Your task to perform on an android device: Open calendar and show me the second week of next month Image 0: 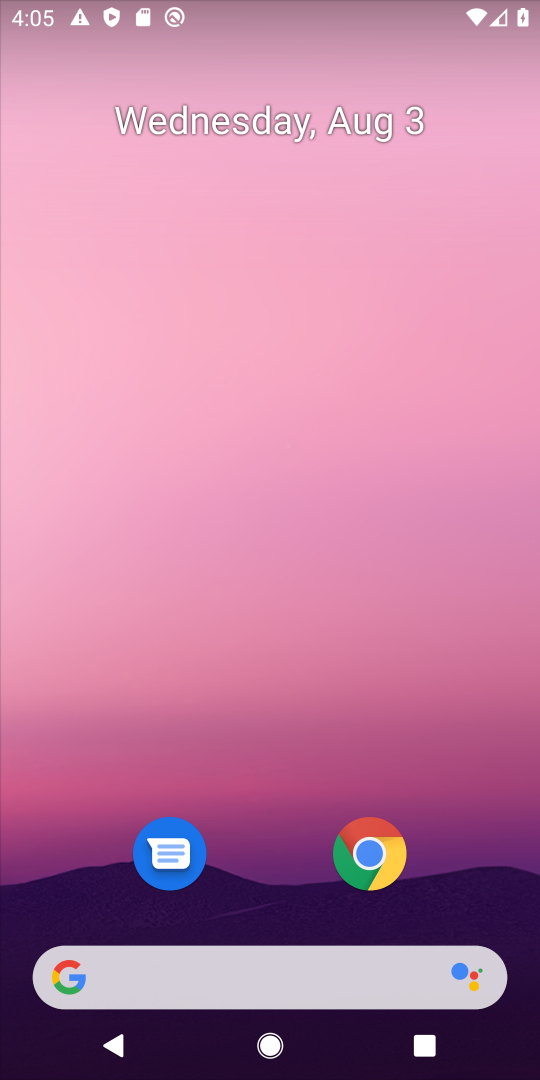
Step 0: drag from (292, 686) to (297, 16)
Your task to perform on an android device: Open calendar and show me the second week of next month Image 1: 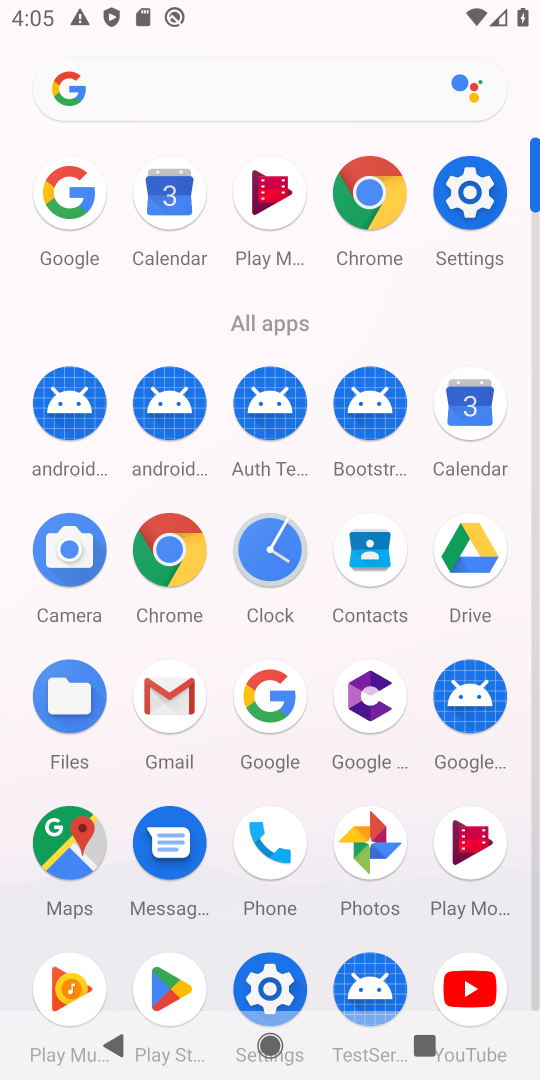
Step 1: click (466, 434)
Your task to perform on an android device: Open calendar and show me the second week of next month Image 2: 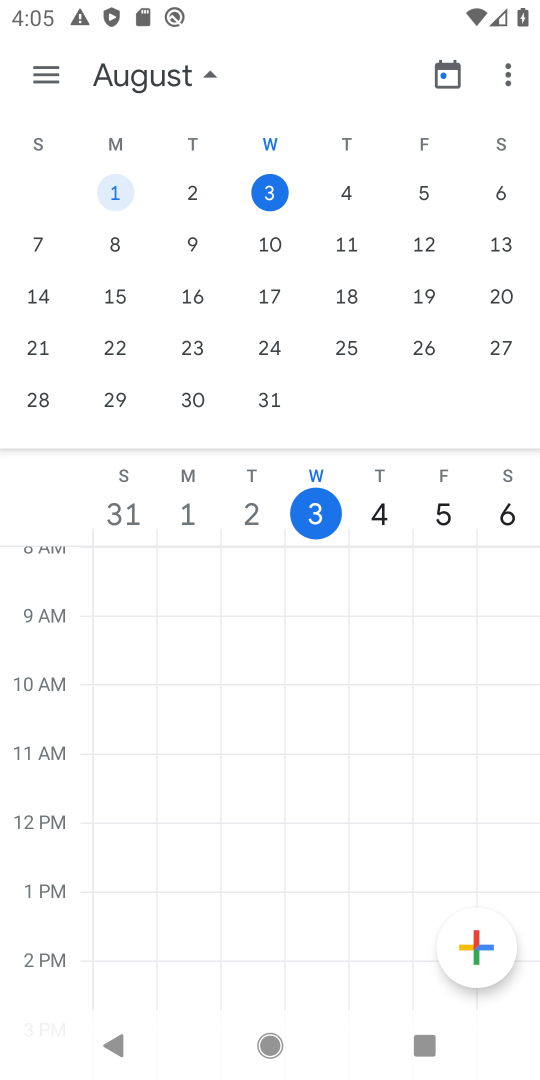
Step 2: drag from (428, 278) to (42, 233)
Your task to perform on an android device: Open calendar and show me the second week of next month Image 3: 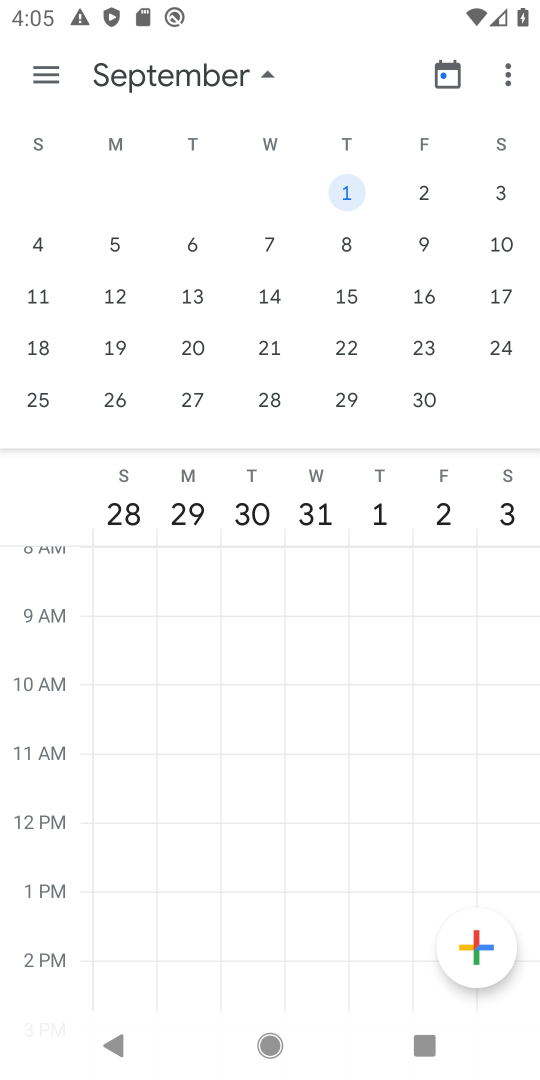
Step 3: click (120, 293)
Your task to perform on an android device: Open calendar and show me the second week of next month Image 4: 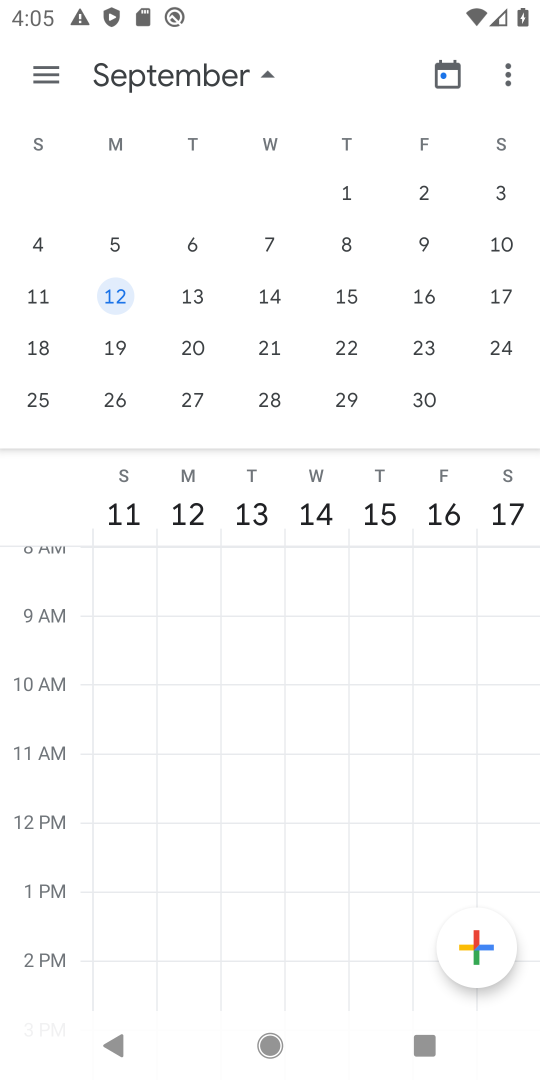
Step 4: click (29, 79)
Your task to perform on an android device: Open calendar and show me the second week of next month Image 5: 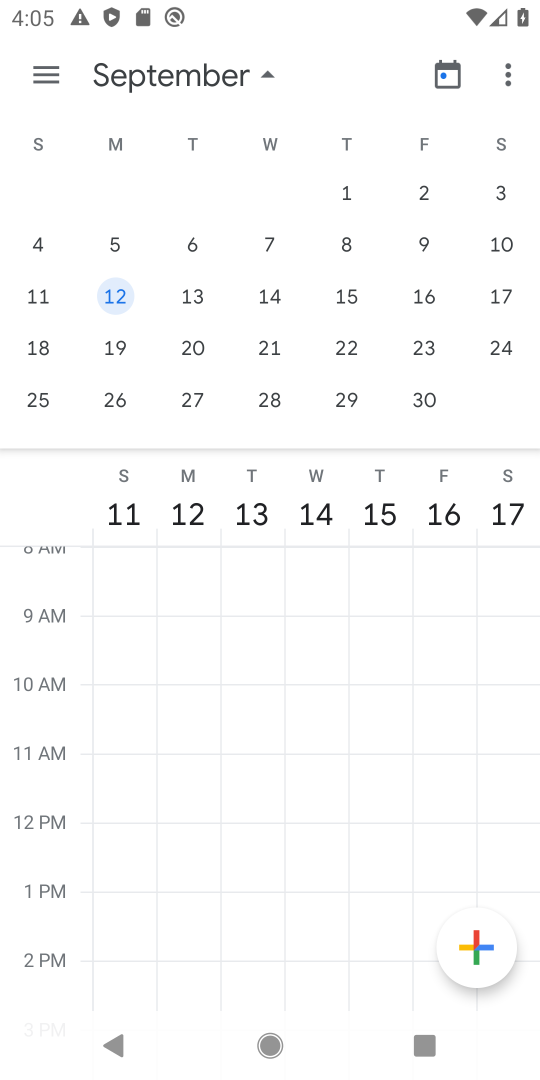
Step 5: click (49, 68)
Your task to perform on an android device: Open calendar and show me the second week of next month Image 6: 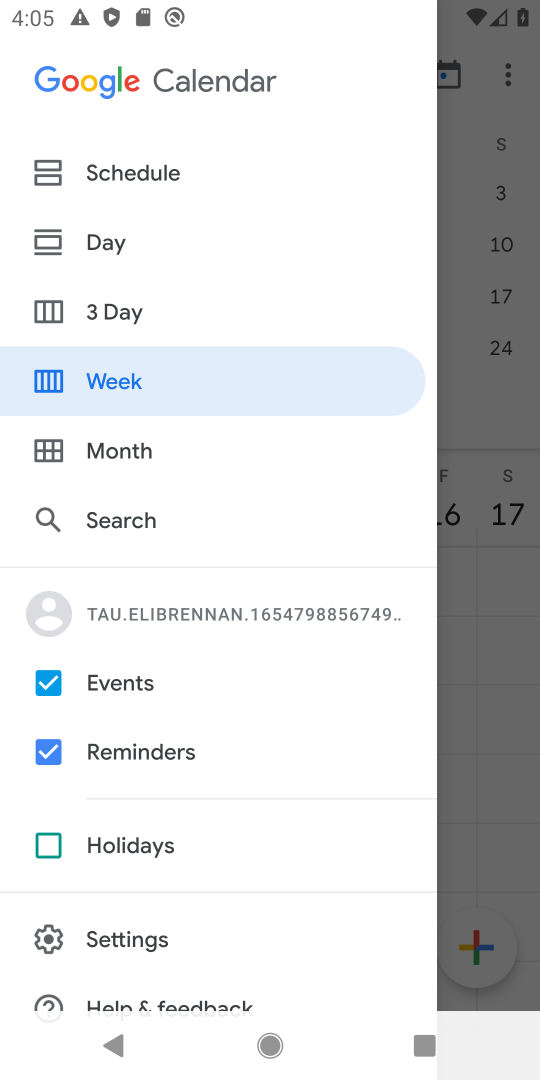
Step 6: click (117, 384)
Your task to perform on an android device: Open calendar and show me the second week of next month Image 7: 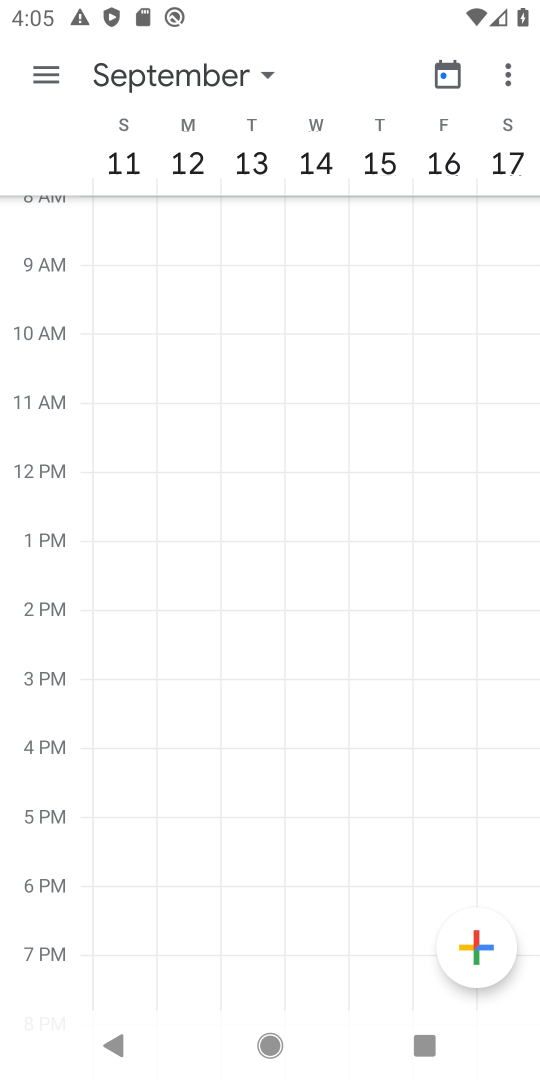
Step 7: task complete